Your task to perform on an android device: Find coffee shops on Maps Image 0: 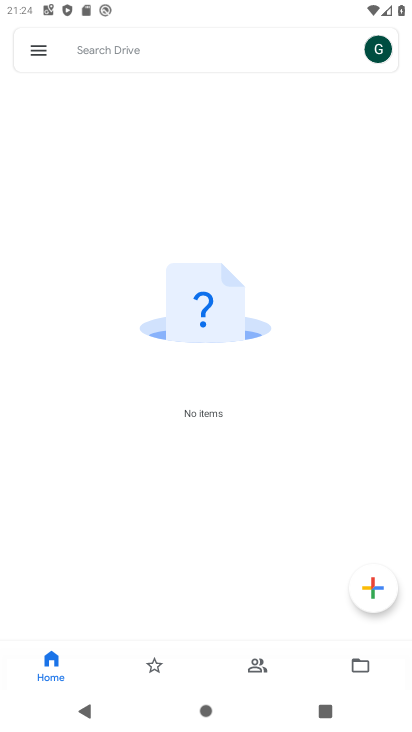
Step 0: press home button
Your task to perform on an android device: Find coffee shops on Maps Image 1: 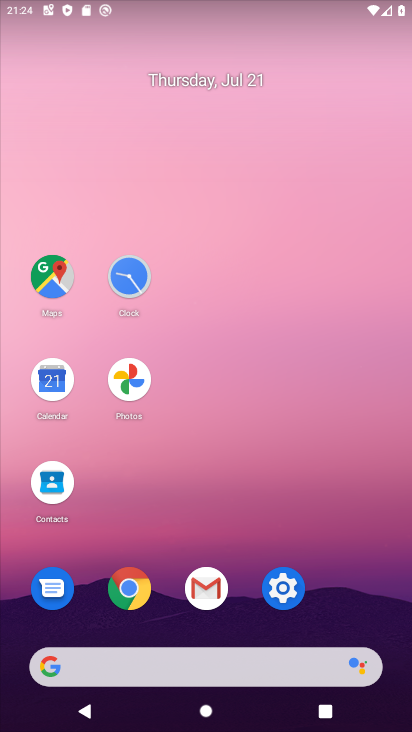
Step 1: click (52, 281)
Your task to perform on an android device: Find coffee shops on Maps Image 2: 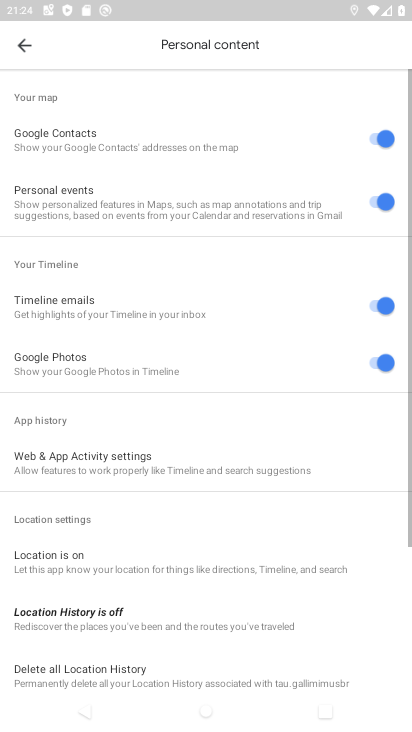
Step 2: click (25, 42)
Your task to perform on an android device: Find coffee shops on Maps Image 3: 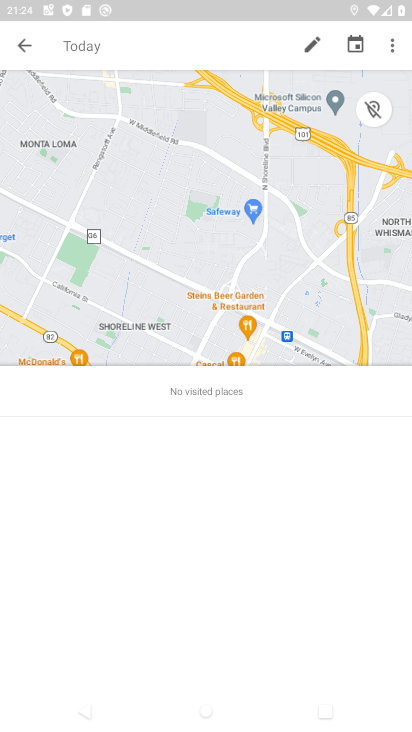
Step 3: click (22, 45)
Your task to perform on an android device: Find coffee shops on Maps Image 4: 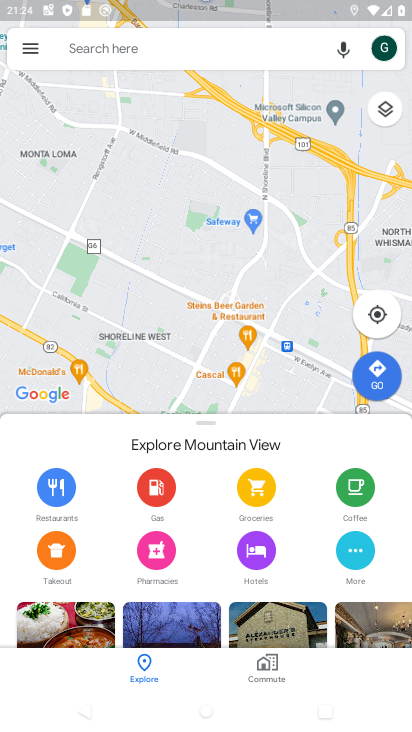
Step 4: click (105, 47)
Your task to perform on an android device: Find coffee shops on Maps Image 5: 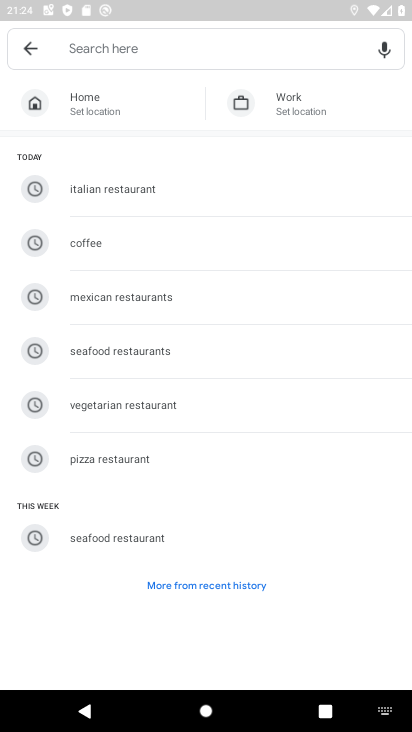
Step 5: click (73, 243)
Your task to perform on an android device: Find coffee shops on Maps Image 6: 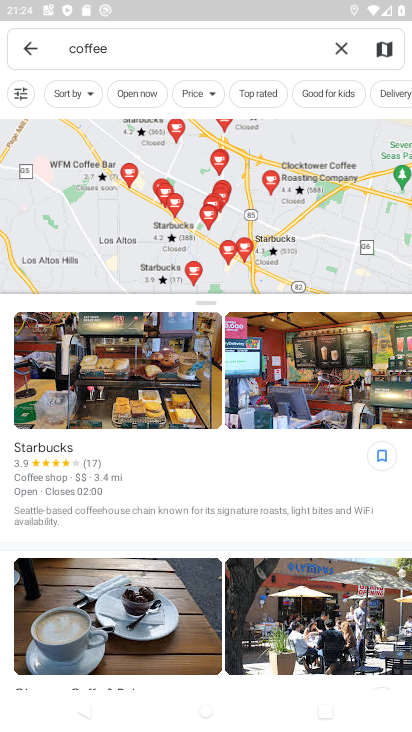
Step 6: task complete